Your task to perform on an android device: turn pop-ups off in chrome Image 0: 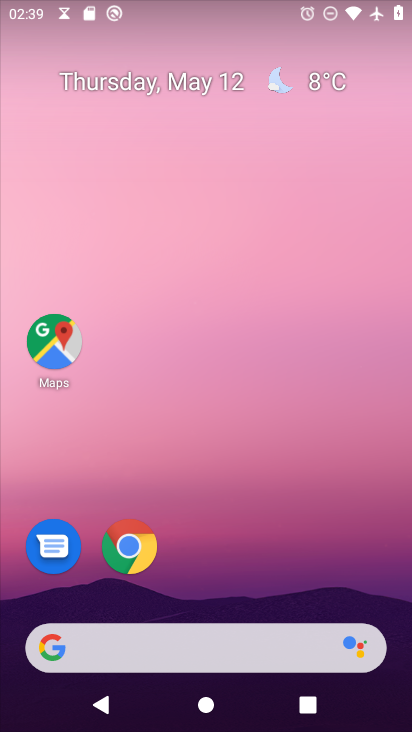
Step 0: drag from (165, 648) to (300, 119)
Your task to perform on an android device: turn pop-ups off in chrome Image 1: 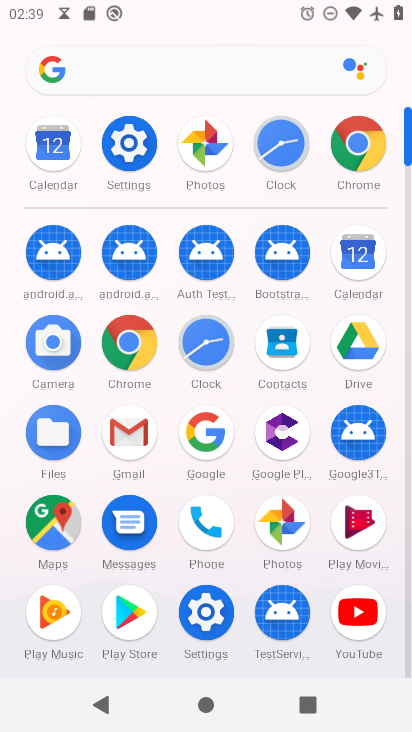
Step 1: click (127, 351)
Your task to perform on an android device: turn pop-ups off in chrome Image 2: 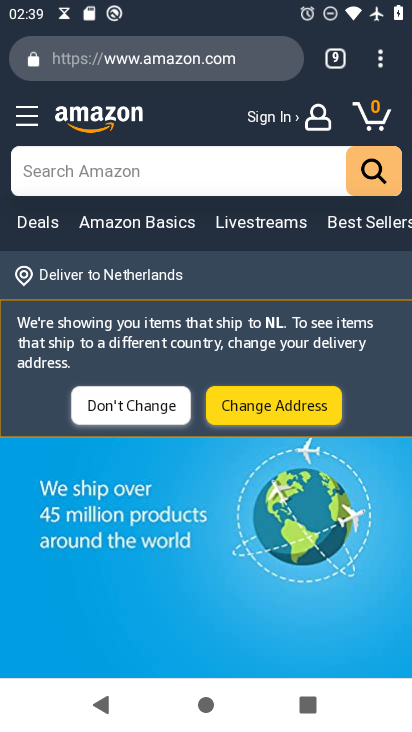
Step 2: drag from (384, 57) to (235, 573)
Your task to perform on an android device: turn pop-ups off in chrome Image 3: 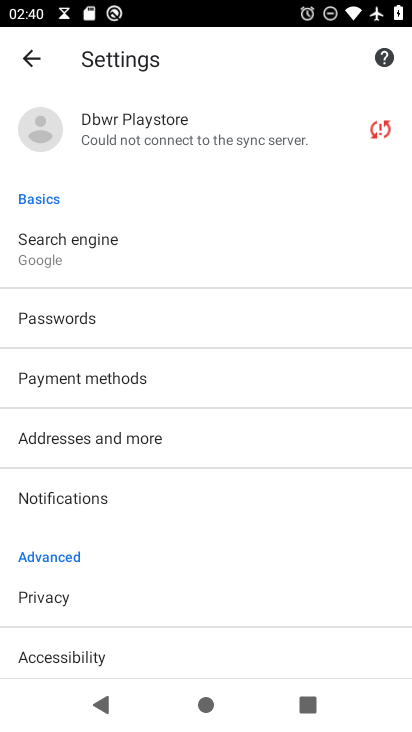
Step 3: drag from (145, 618) to (249, 408)
Your task to perform on an android device: turn pop-ups off in chrome Image 4: 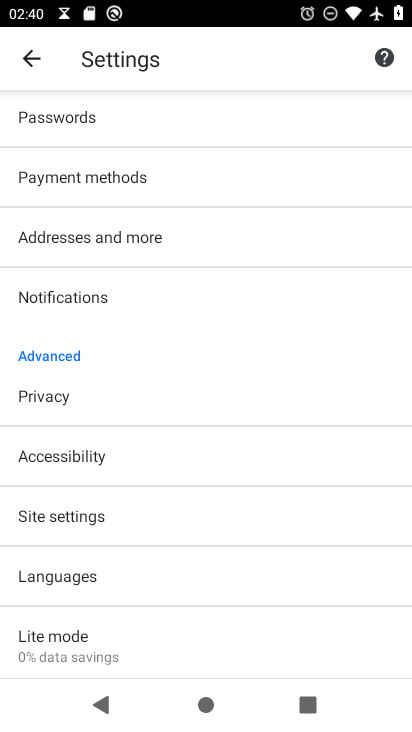
Step 4: click (76, 515)
Your task to perform on an android device: turn pop-ups off in chrome Image 5: 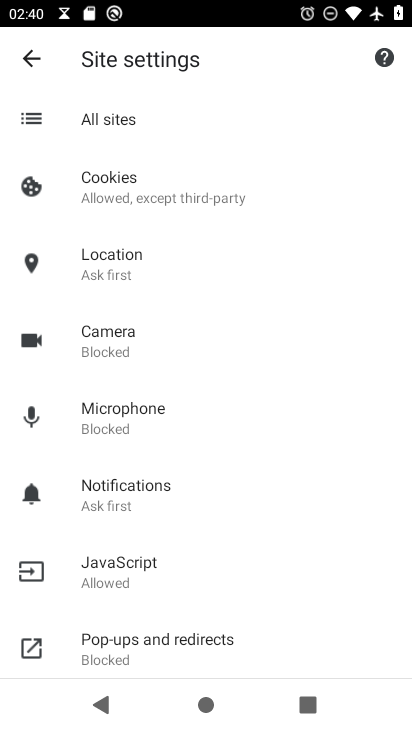
Step 5: click (160, 647)
Your task to perform on an android device: turn pop-ups off in chrome Image 6: 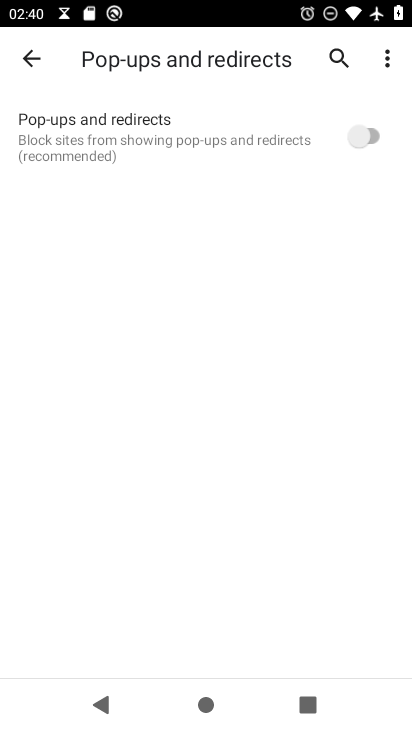
Step 6: task complete